Your task to perform on an android device: check the backup settings in the google photos Image 0: 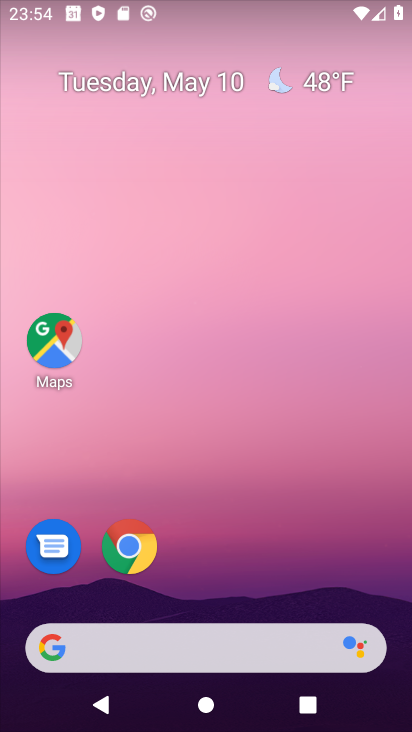
Step 0: drag from (219, 586) to (233, 111)
Your task to perform on an android device: check the backup settings in the google photos Image 1: 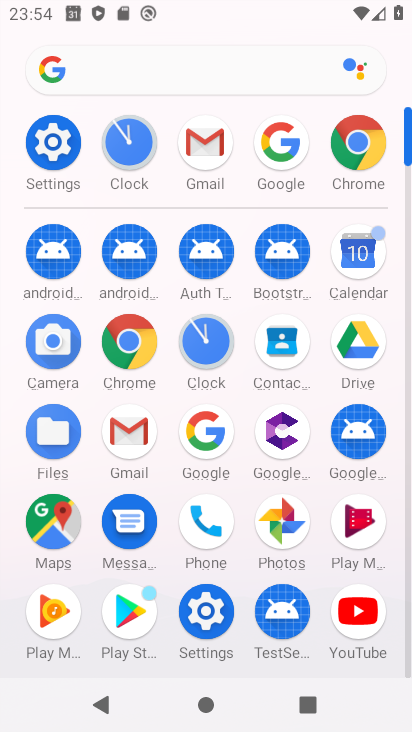
Step 1: click (271, 525)
Your task to perform on an android device: check the backup settings in the google photos Image 2: 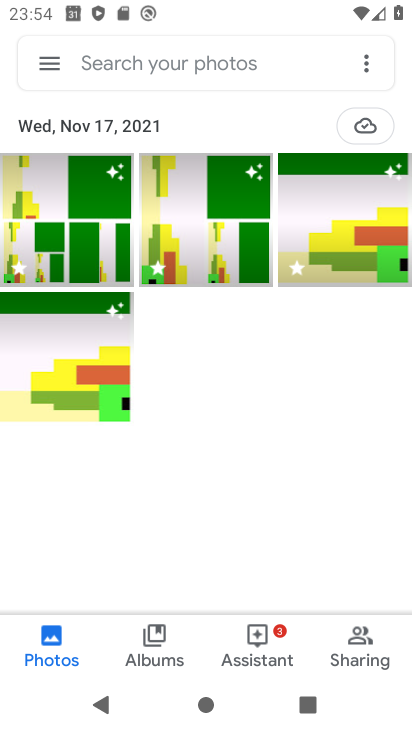
Step 2: click (41, 76)
Your task to perform on an android device: check the backup settings in the google photos Image 3: 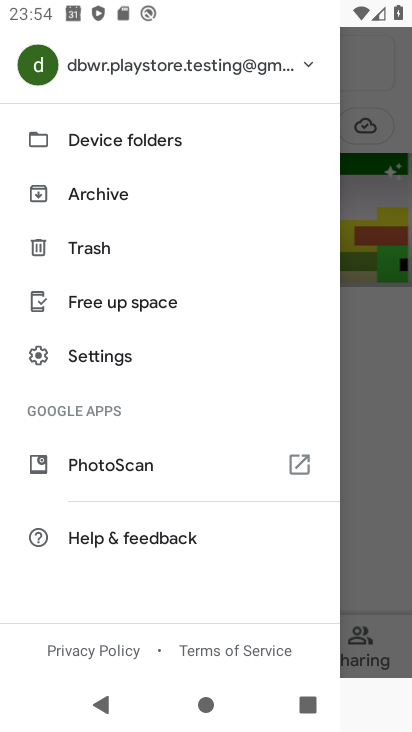
Step 3: click (90, 356)
Your task to perform on an android device: check the backup settings in the google photos Image 4: 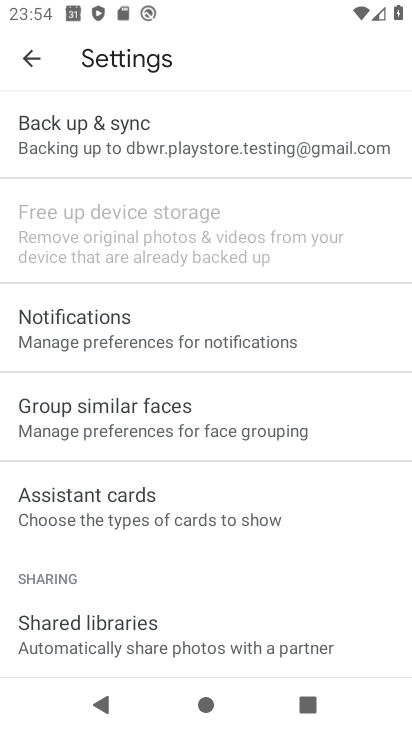
Step 4: click (126, 142)
Your task to perform on an android device: check the backup settings in the google photos Image 5: 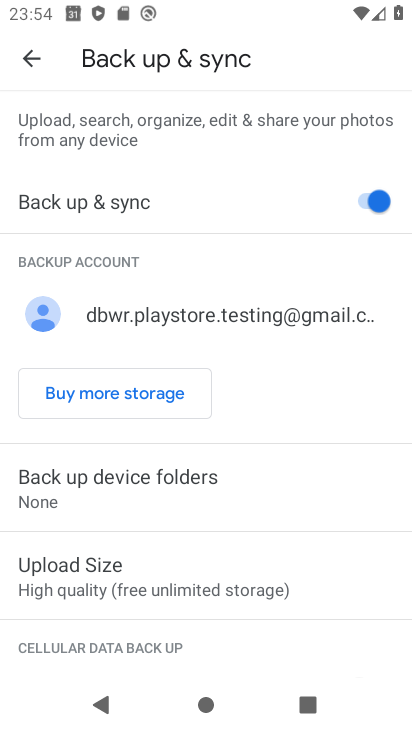
Step 5: task complete